Your task to perform on an android device: turn on location history Image 0: 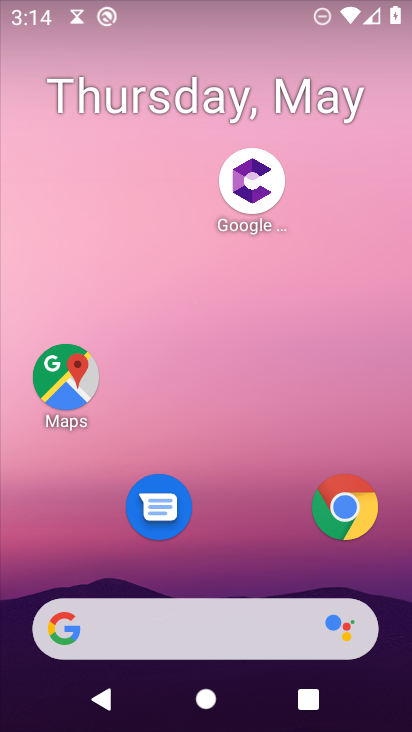
Step 0: drag from (235, 545) to (157, 122)
Your task to perform on an android device: turn on location history Image 1: 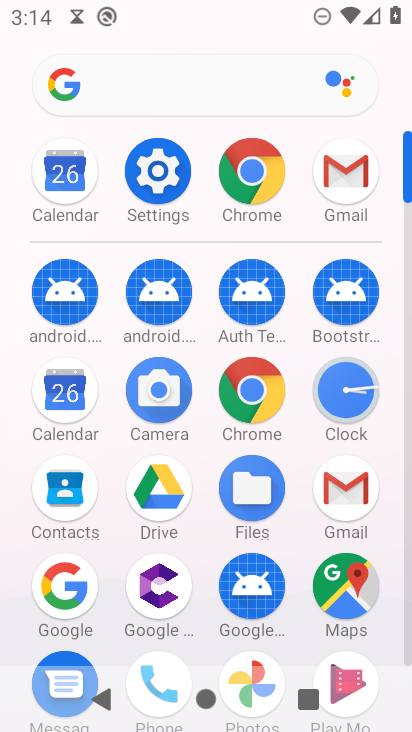
Step 1: click (166, 180)
Your task to perform on an android device: turn on location history Image 2: 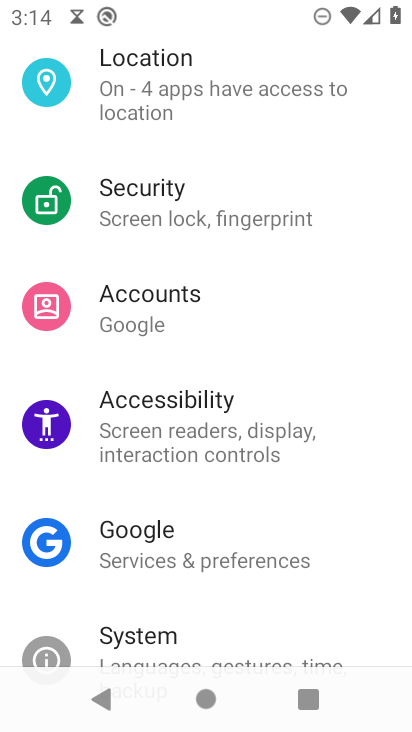
Step 2: click (97, 100)
Your task to perform on an android device: turn on location history Image 3: 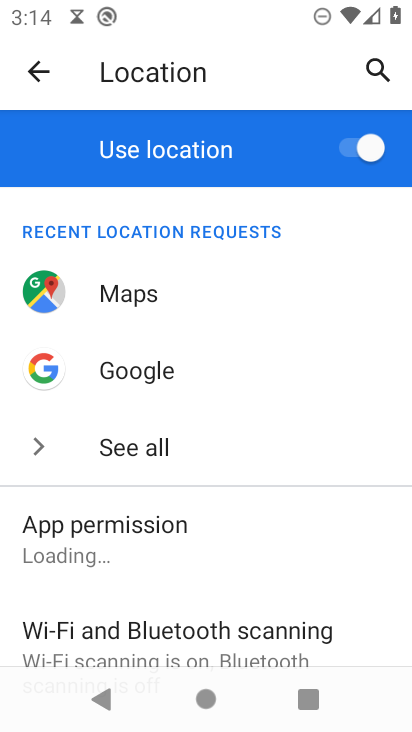
Step 3: drag from (187, 605) to (162, 151)
Your task to perform on an android device: turn on location history Image 4: 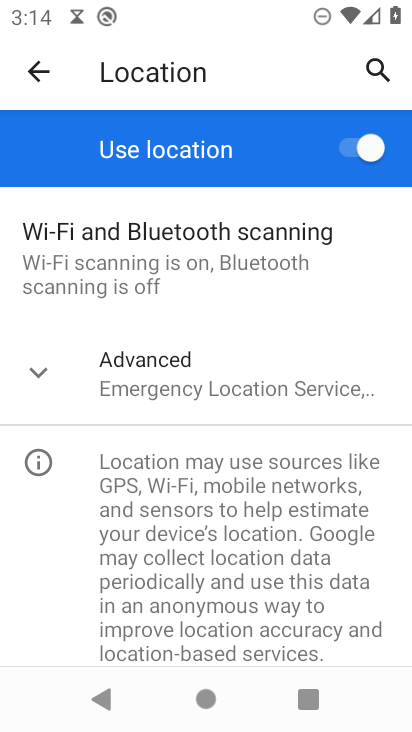
Step 4: drag from (46, 624) to (68, 280)
Your task to perform on an android device: turn on location history Image 5: 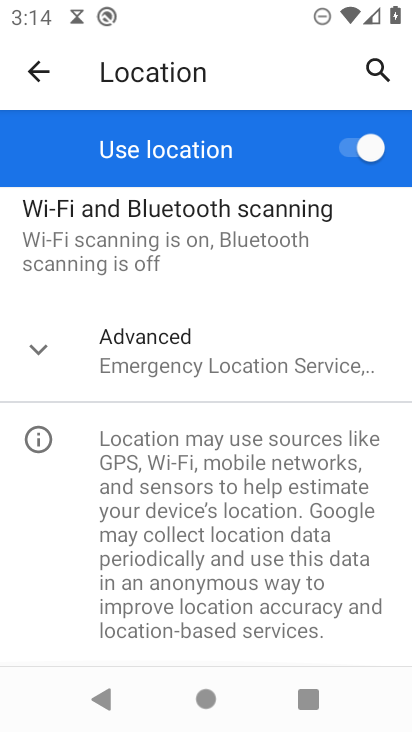
Step 5: click (54, 368)
Your task to perform on an android device: turn on location history Image 6: 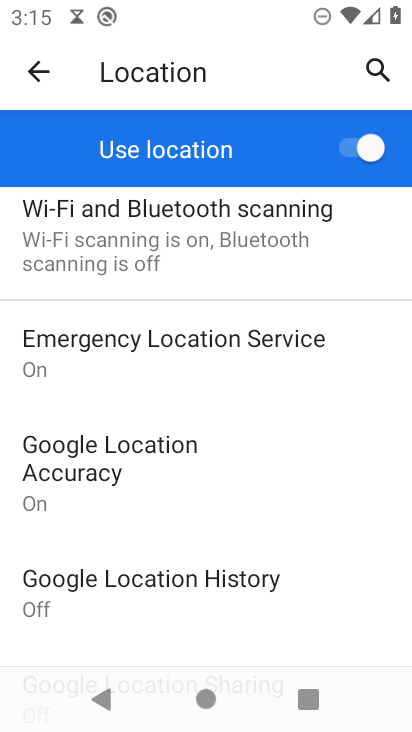
Step 6: click (203, 597)
Your task to perform on an android device: turn on location history Image 7: 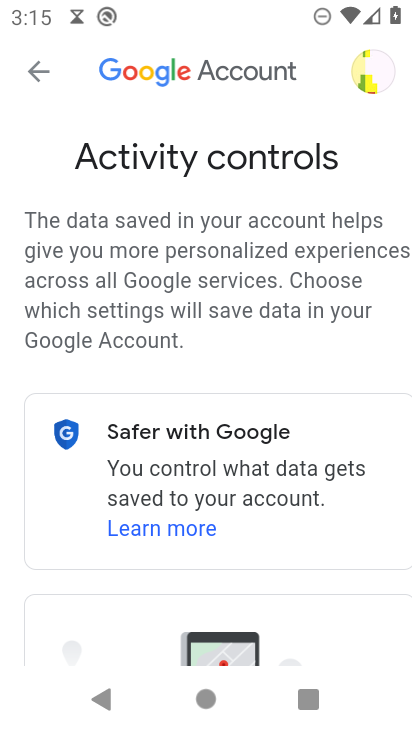
Step 7: drag from (333, 603) to (266, 198)
Your task to perform on an android device: turn on location history Image 8: 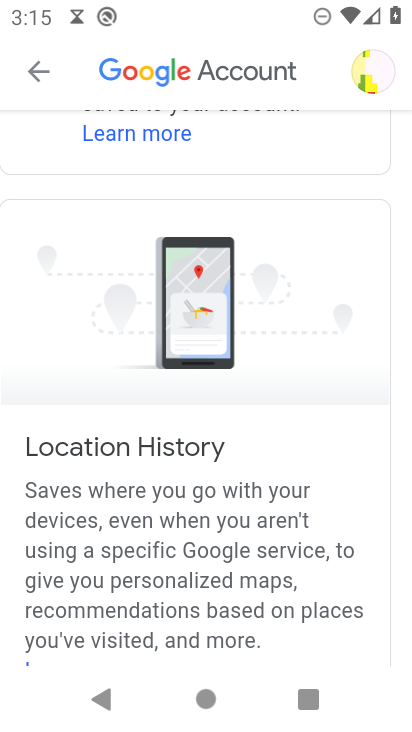
Step 8: drag from (303, 597) to (258, 240)
Your task to perform on an android device: turn on location history Image 9: 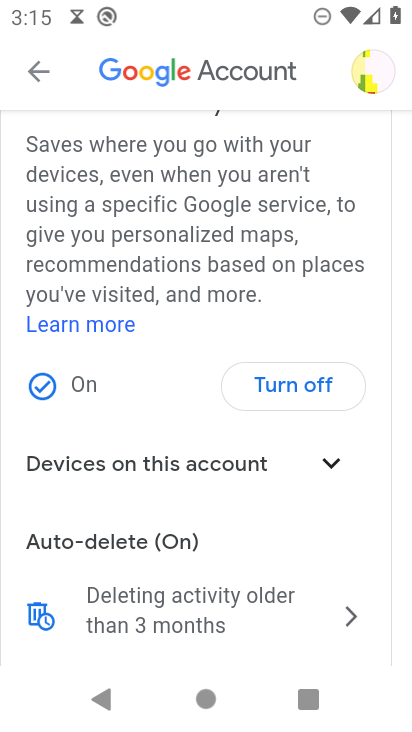
Step 9: click (77, 381)
Your task to perform on an android device: turn on location history Image 10: 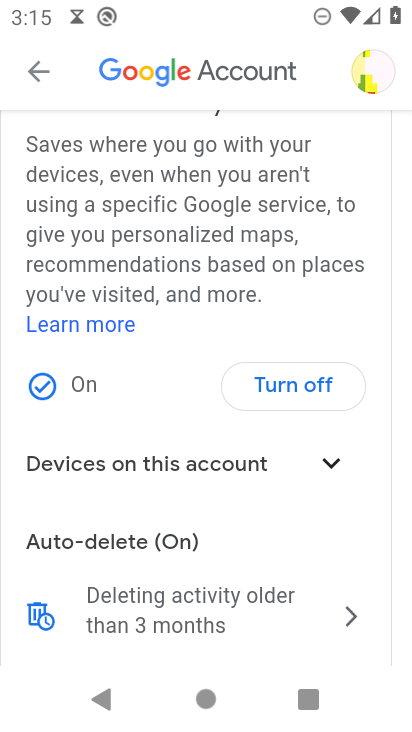
Step 10: task complete